Your task to perform on an android device: toggle notification dots Image 0: 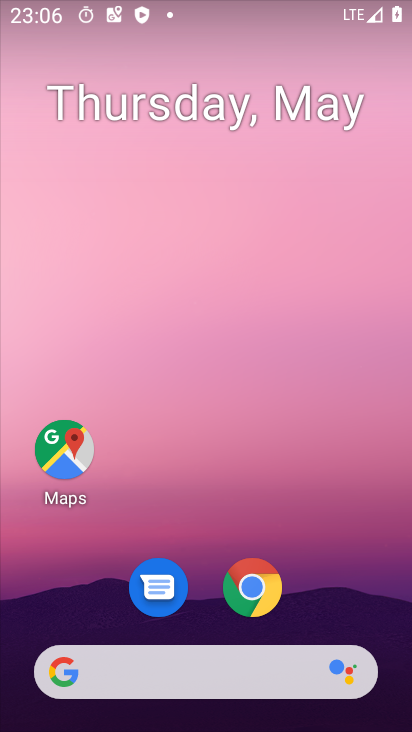
Step 0: drag from (345, 542) to (349, 1)
Your task to perform on an android device: toggle notification dots Image 1: 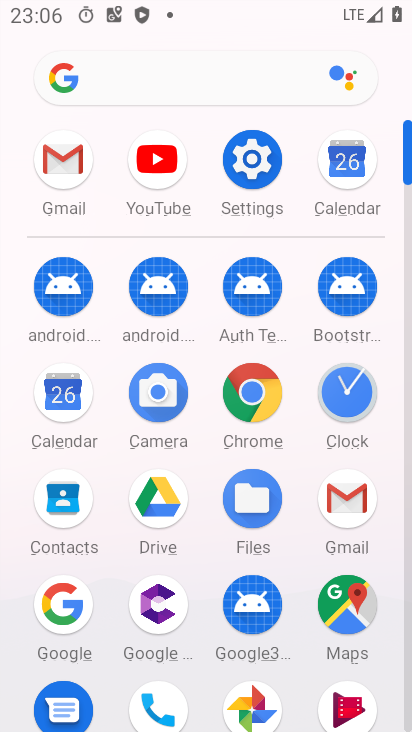
Step 1: click (229, 221)
Your task to perform on an android device: toggle notification dots Image 2: 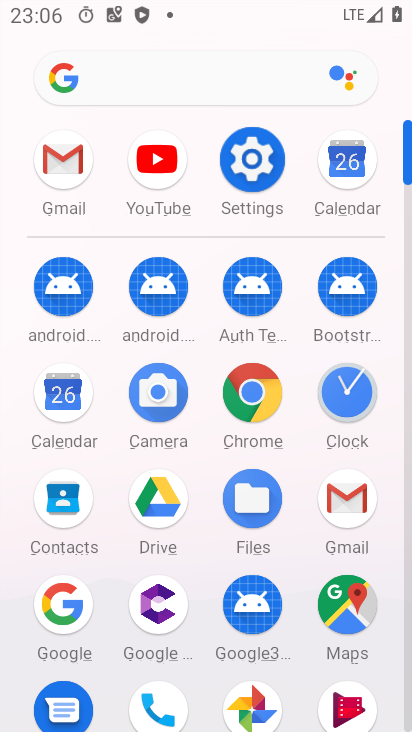
Step 2: click (236, 166)
Your task to perform on an android device: toggle notification dots Image 3: 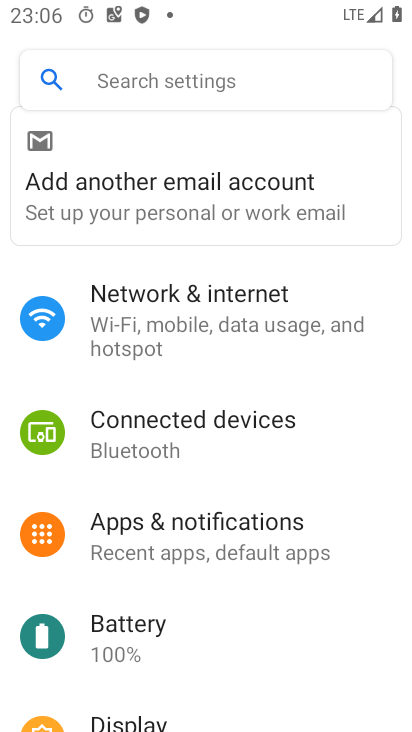
Step 3: click (171, 527)
Your task to perform on an android device: toggle notification dots Image 4: 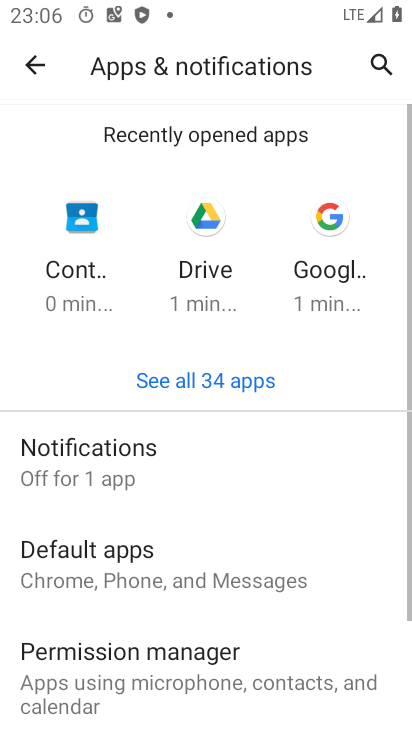
Step 4: click (84, 478)
Your task to perform on an android device: toggle notification dots Image 5: 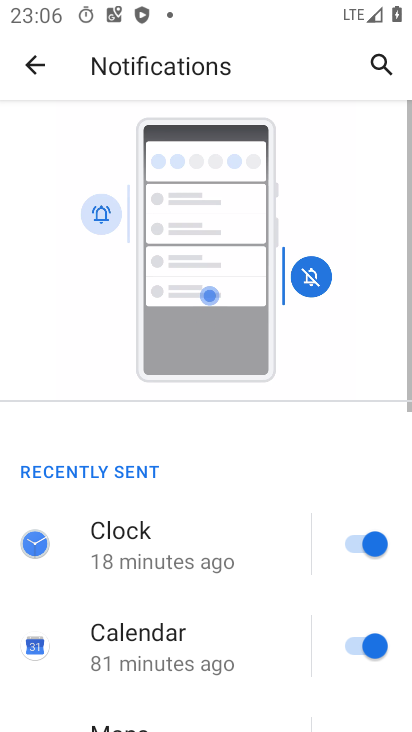
Step 5: drag from (194, 639) to (165, 10)
Your task to perform on an android device: toggle notification dots Image 6: 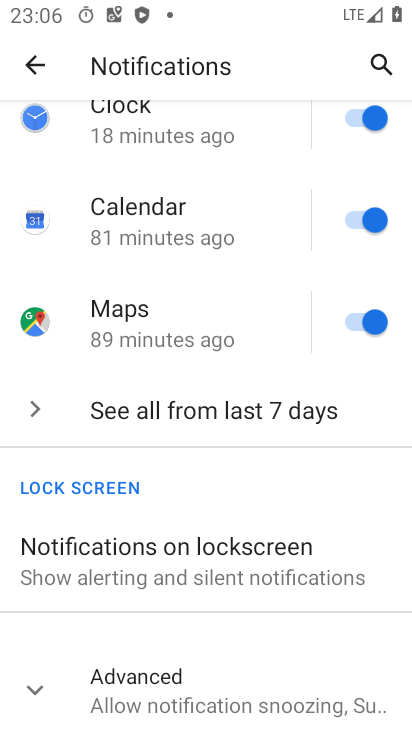
Step 6: click (35, 698)
Your task to perform on an android device: toggle notification dots Image 7: 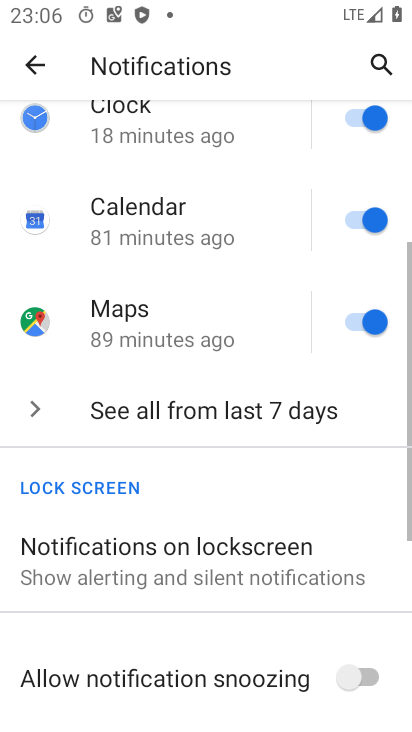
Step 7: drag from (192, 560) to (203, 57)
Your task to perform on an android device: toggle notification dots Image 8: 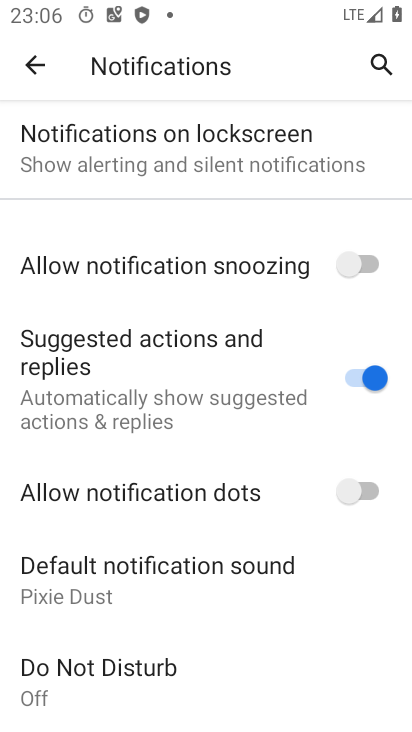
Step 8: click (368, 487)
Your task to perform on an android device: toggle notification dots Image 9: 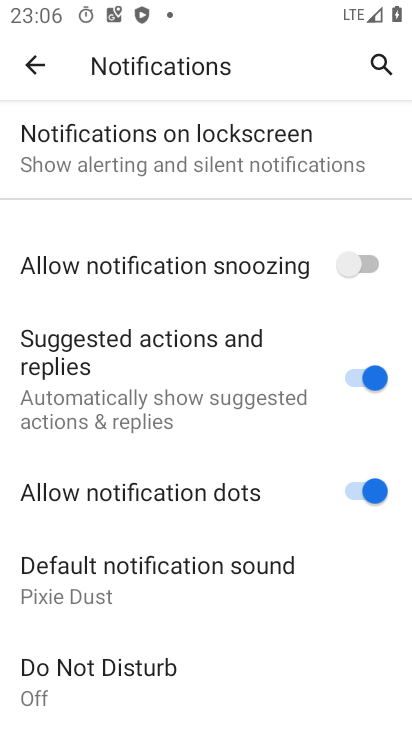
Step 9: task complete